Your task to perform on an android device: View the shopping cart on amazon.com. Add jbl flip 4 to the cart on amazon.com, then select checkout. Image 0: 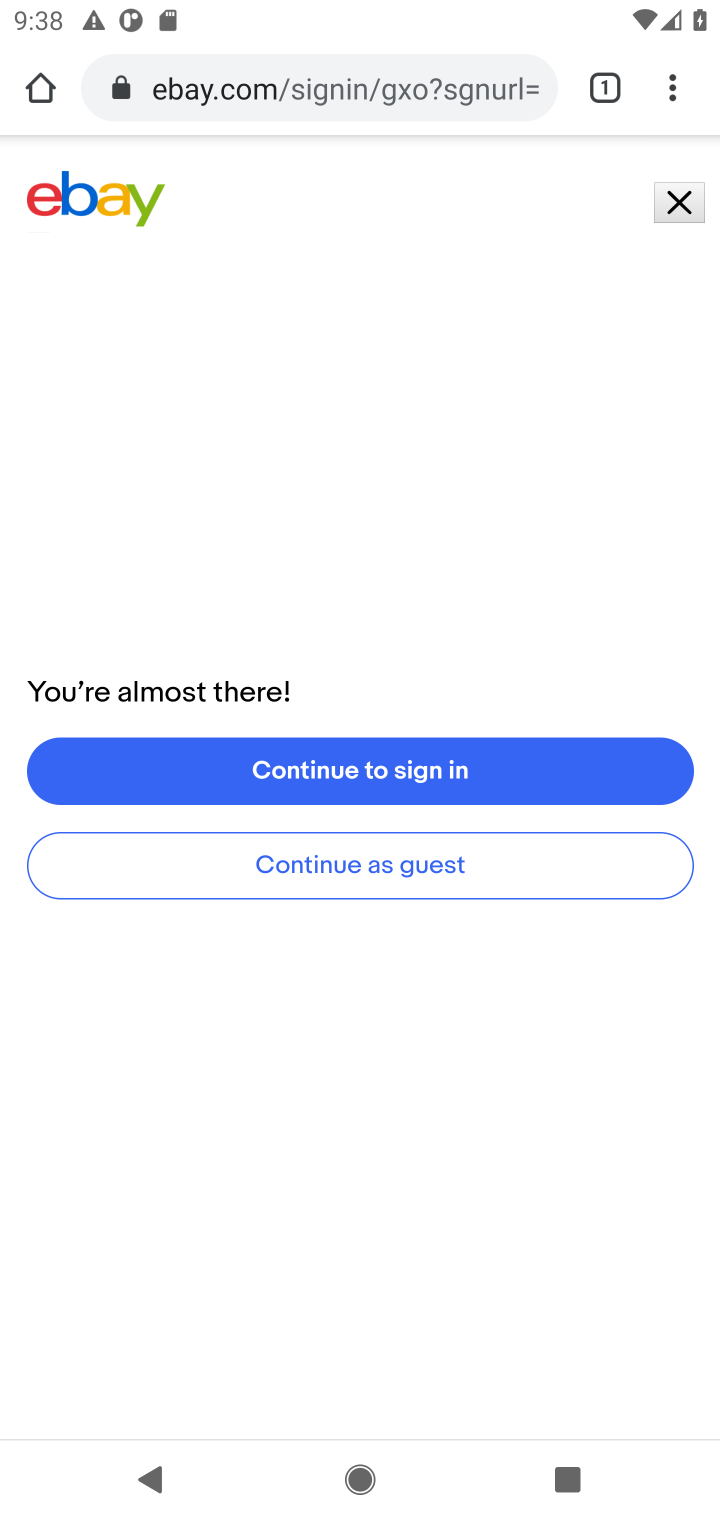
Step 0: press home button
Your task to perform on an android device: View the shopping cart on amazon.com. Add jbl flip 4 to the cart on amazon.com, then select checkout. Image 1: 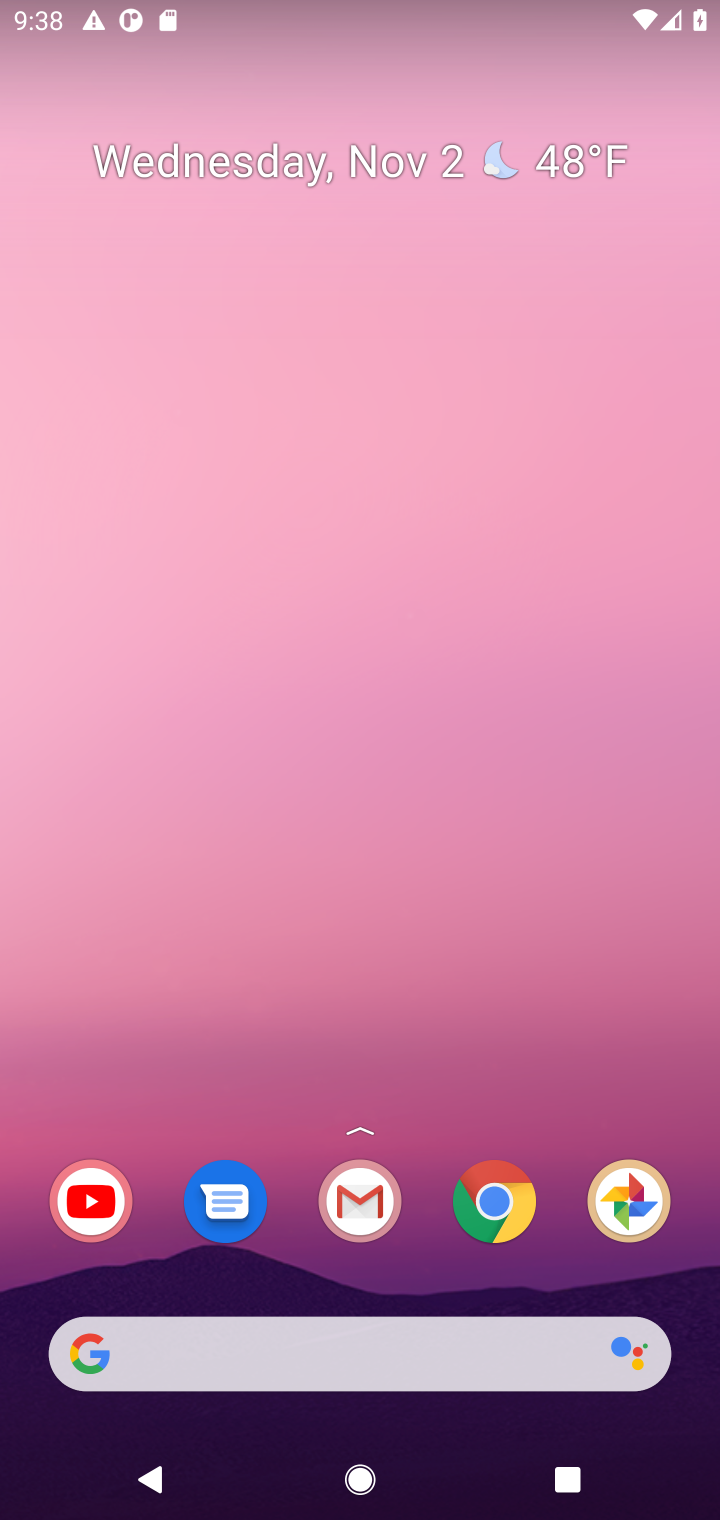
Step 1: drag from (466, 1118) to (484, 297)
Your task to perform on an android device: View the shopping cart on amazon.com. Add jbl flip 4 to the cart on amazon.com, then select checkout. Image 2: 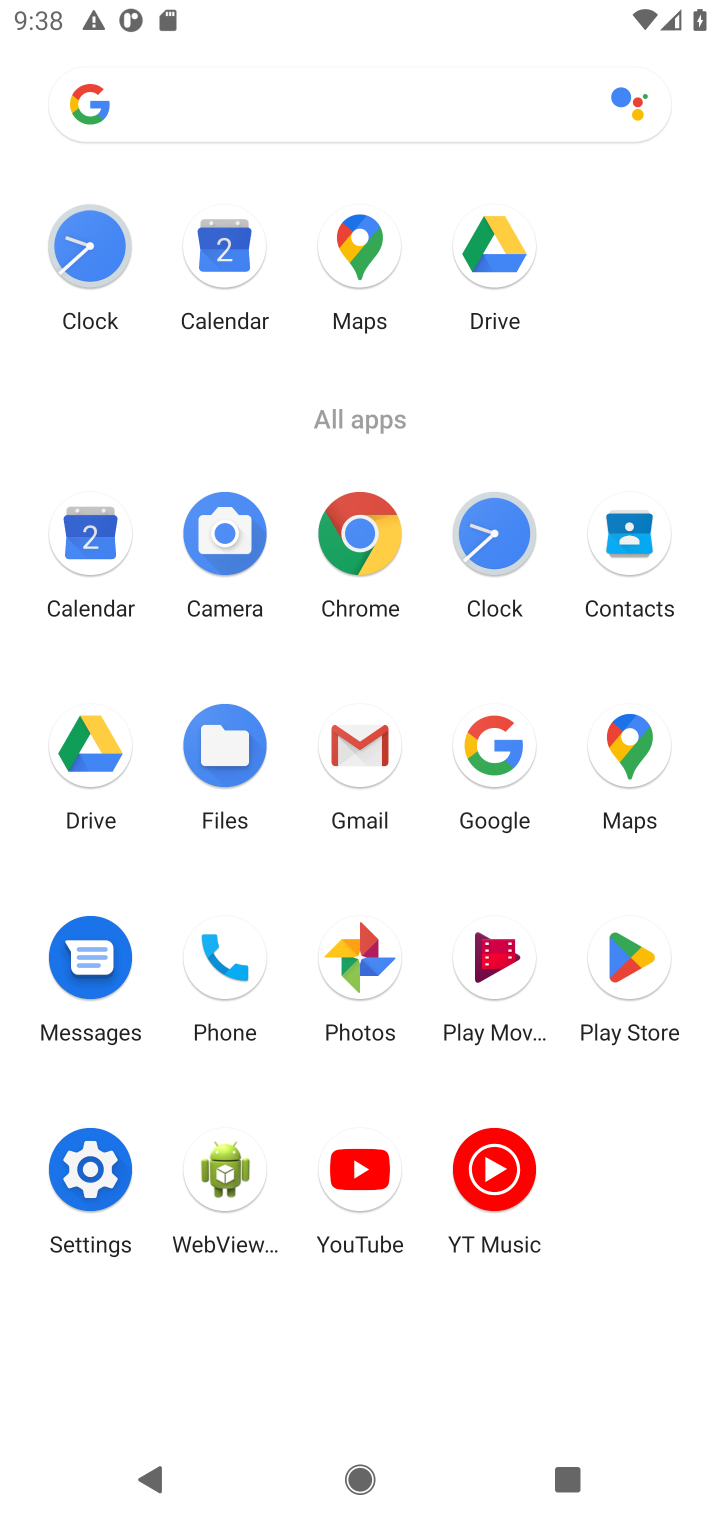
Step 2: click (358, 537)
Your task to perform on an android device: View the shopping cart on amazon.com. Add jbl flip 4 to the cart on amazon.com, then select checkout. Image 3: 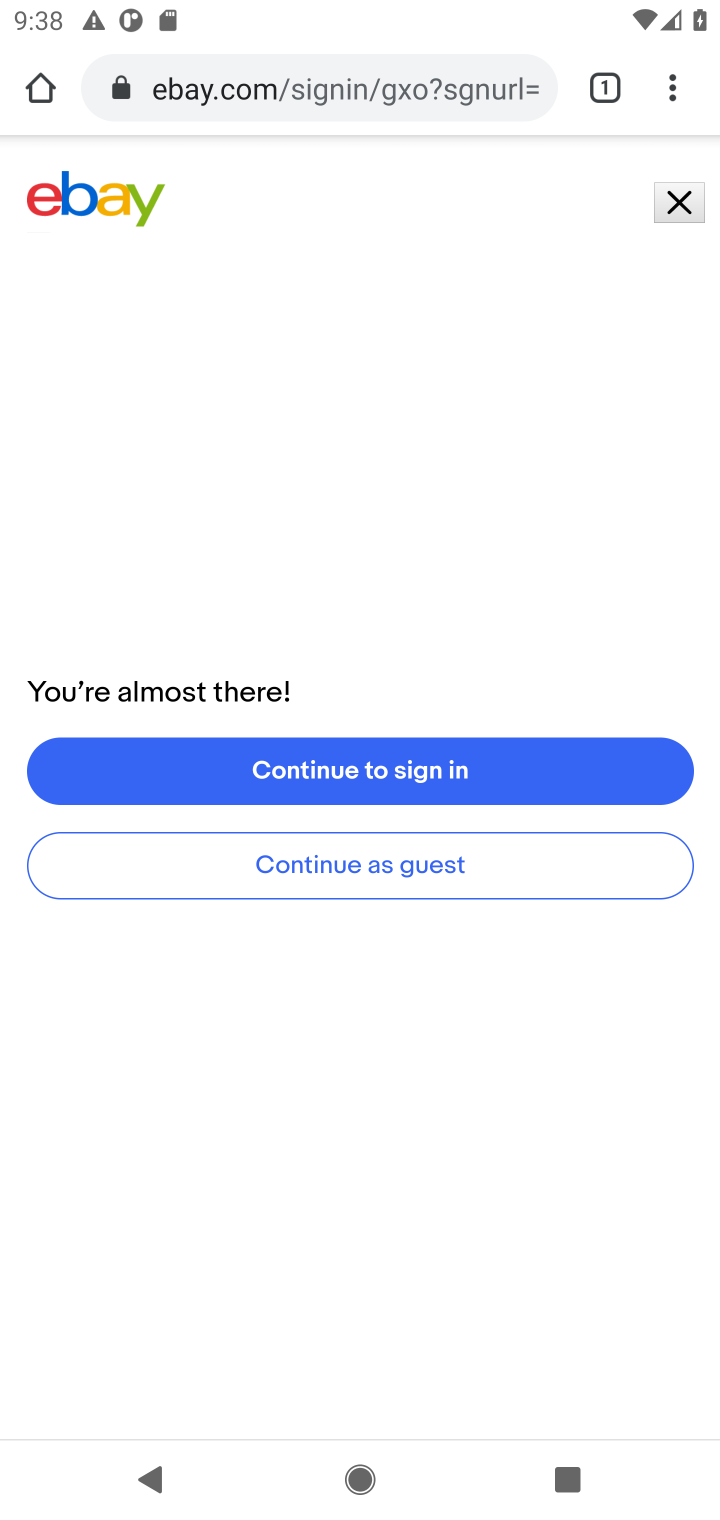
Step 3: click (350, 98)
Your task to perform on an android device: View the shopping cart on amazon.com. Add jbl flip 4 to the cart on amazon.com, then select checkout. Image 4: 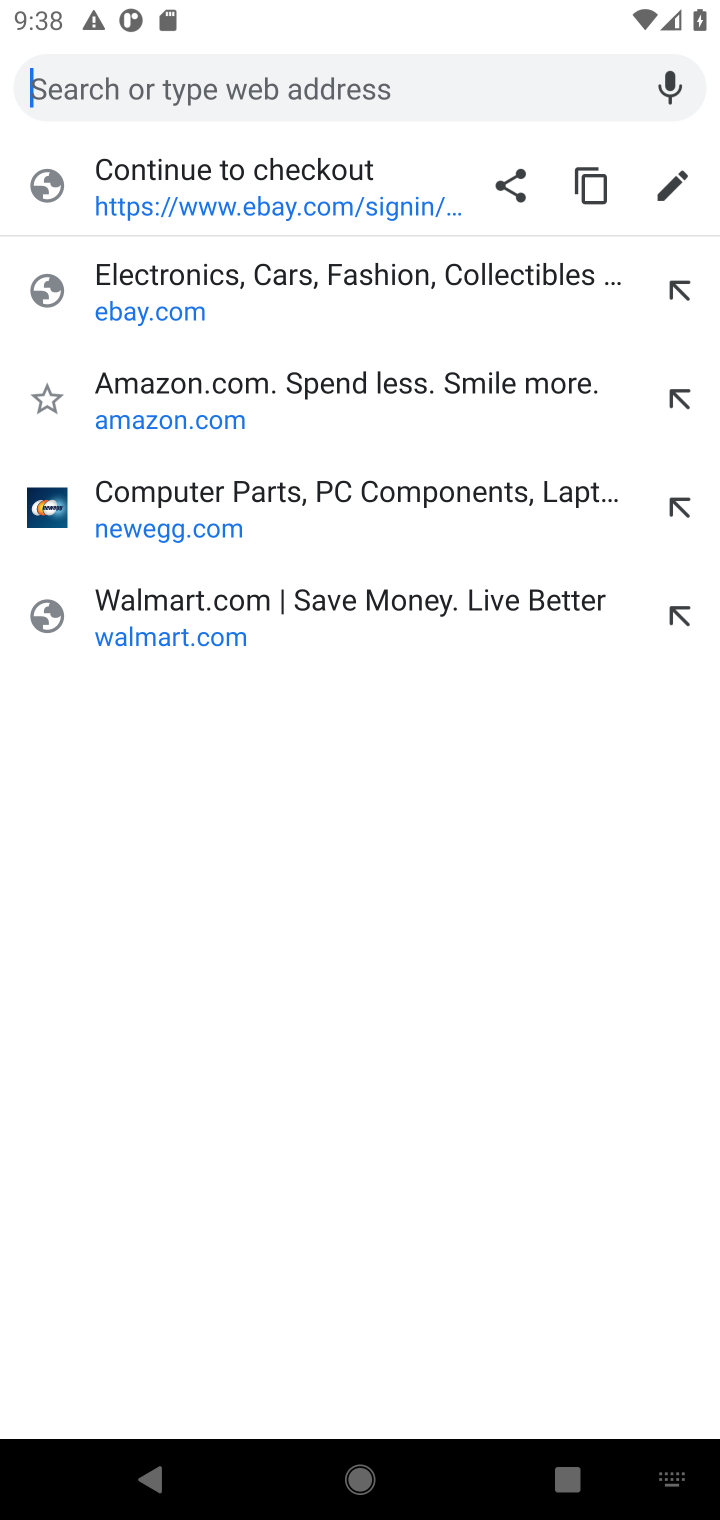
Step 4: type "amazon.com"
Your task to perform on an android device: View the shopping cart on amazon.com. Add jbl flip 4 to the cart on amazon.com, then select checkout. Image 5: 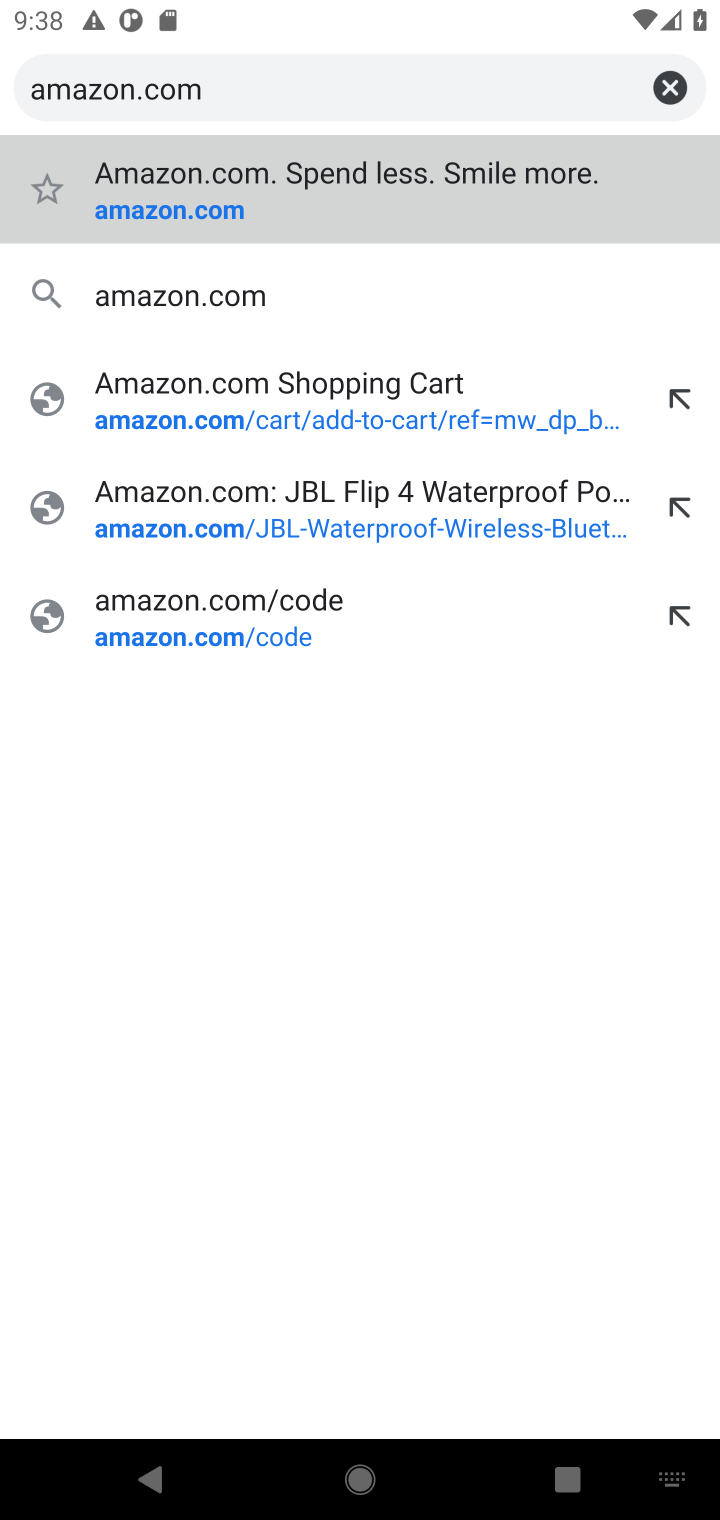
Step 5: press enter
Your task to perform on an android device: View the shopping cart on amazon.com. Add jbl flip 4 to the cart on amazon.com, then select checkout. Image 6: 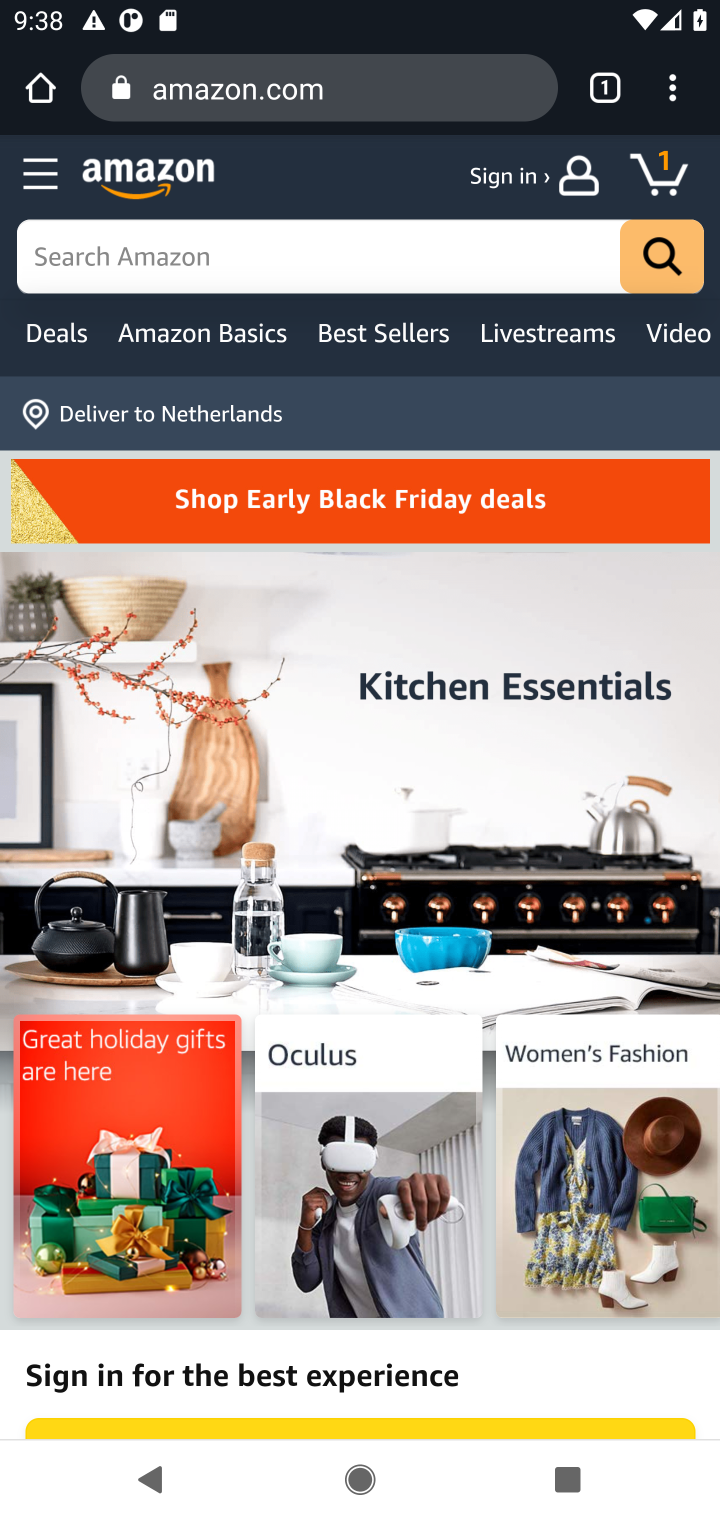
Step 6: click (318, 245)
Your task to perform on an android device: View the shopping cart on amazon.com. Add jbl flip 4 to the cart on amazon.com, then select checkout. Image 7: 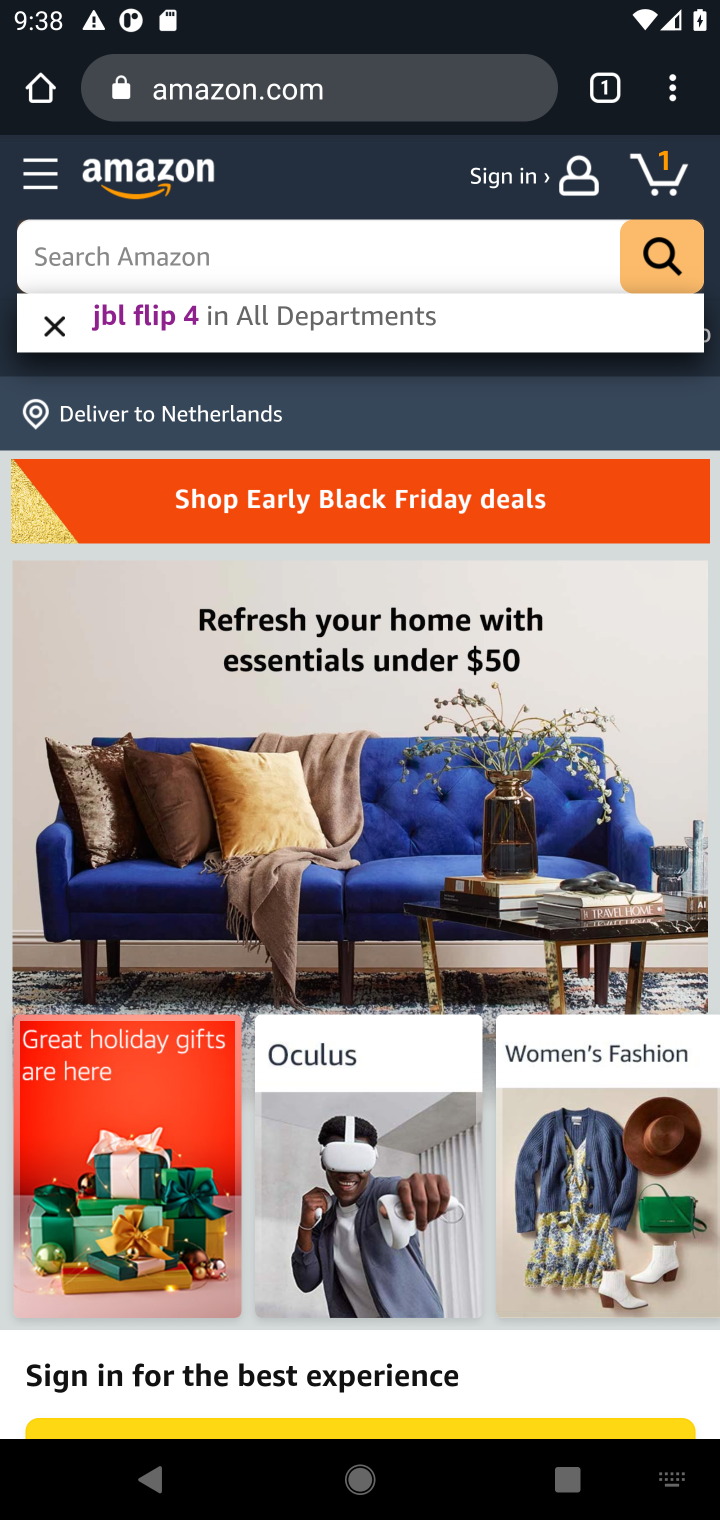
Step 7: type "jbl flip 4"
Your task to perform on an android device: View the shopping cart on amazon.com. Add jbl flip 4 to the cart on amazon.com, then select checkout. Image 8: 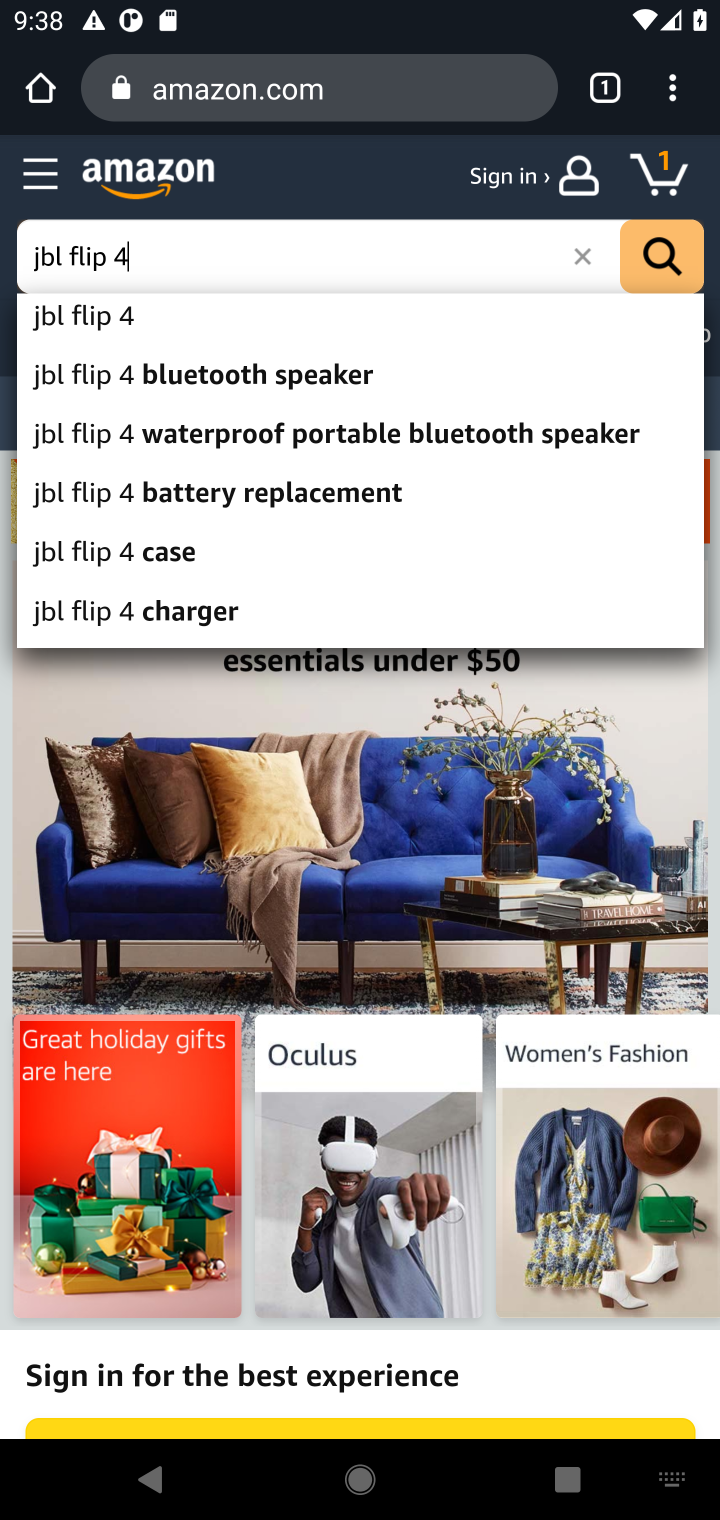
Step 8: press enter
Your task to perform on an android device: View the shopping cart on amazon.com. Add jbl flip 4 to the cart on amazon.com, then select checkout. Image 9: 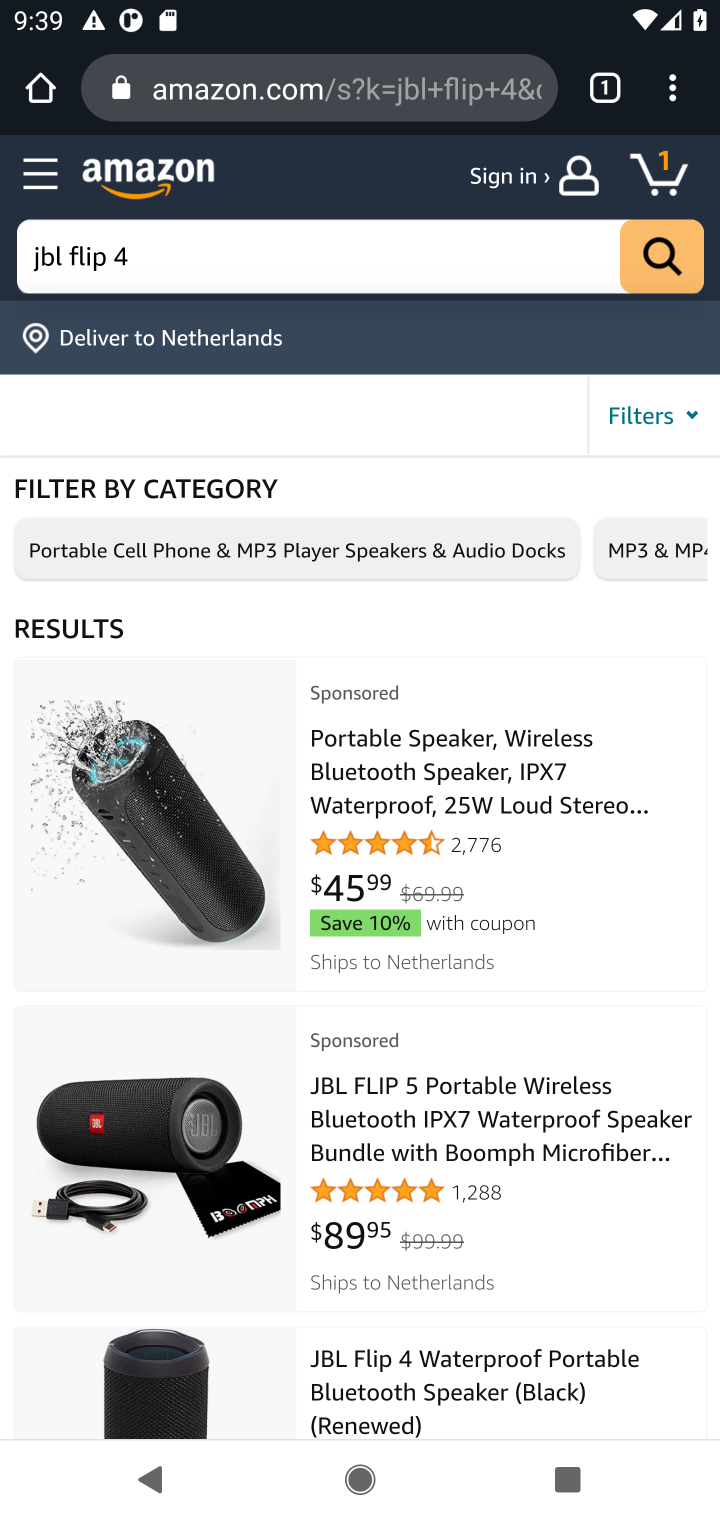
Step 9: drag from (298, 1077) to (344, 371)
Your task to perform on an android device: View the shopping cart on amazon.com. Add jbl flip 4 to the cart on amazon.com, then select checkout. Image 10: 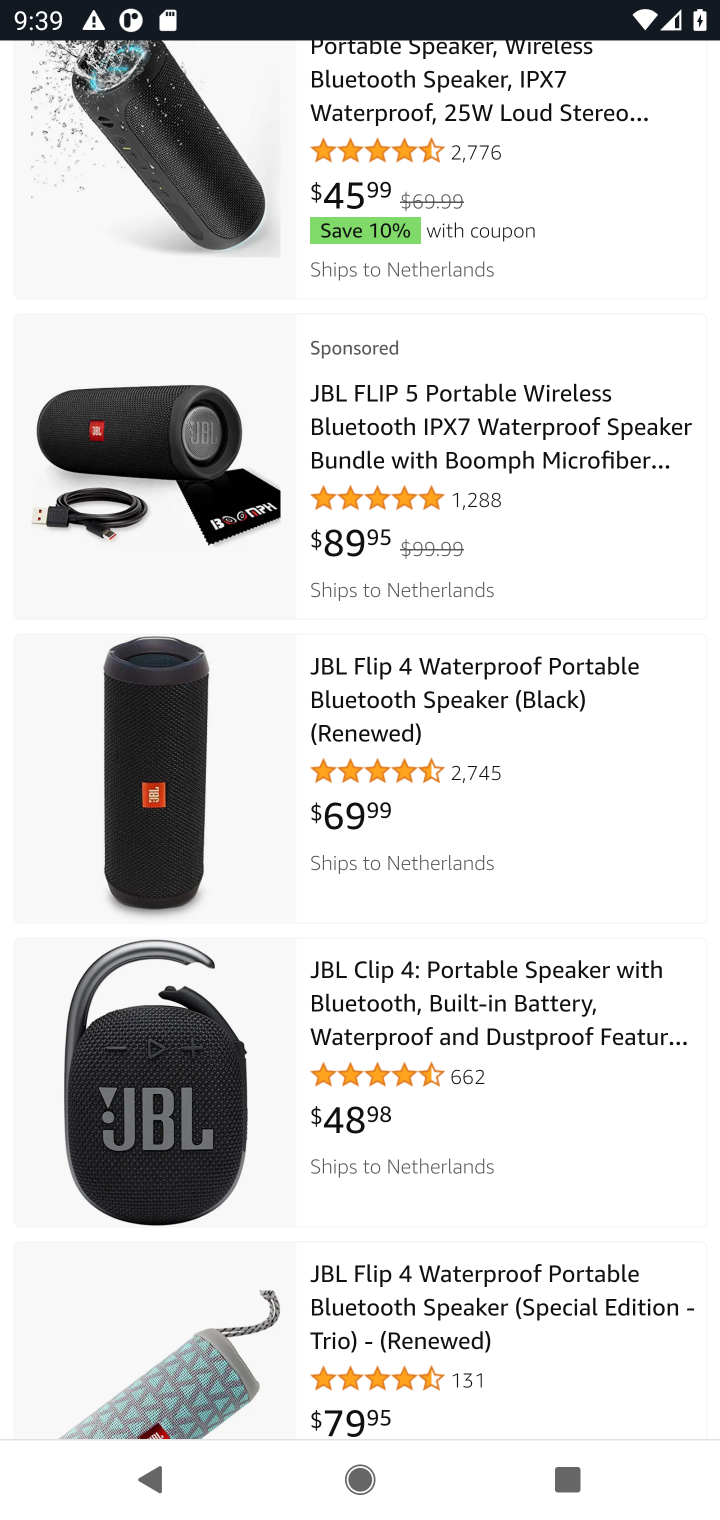
Step 10: click (393, 740)
Your task to perform on an android device: View the shopping cart on amazon.com. Add jbl flip 4 to the cart on amazon.com, then select checkout. Image 11: 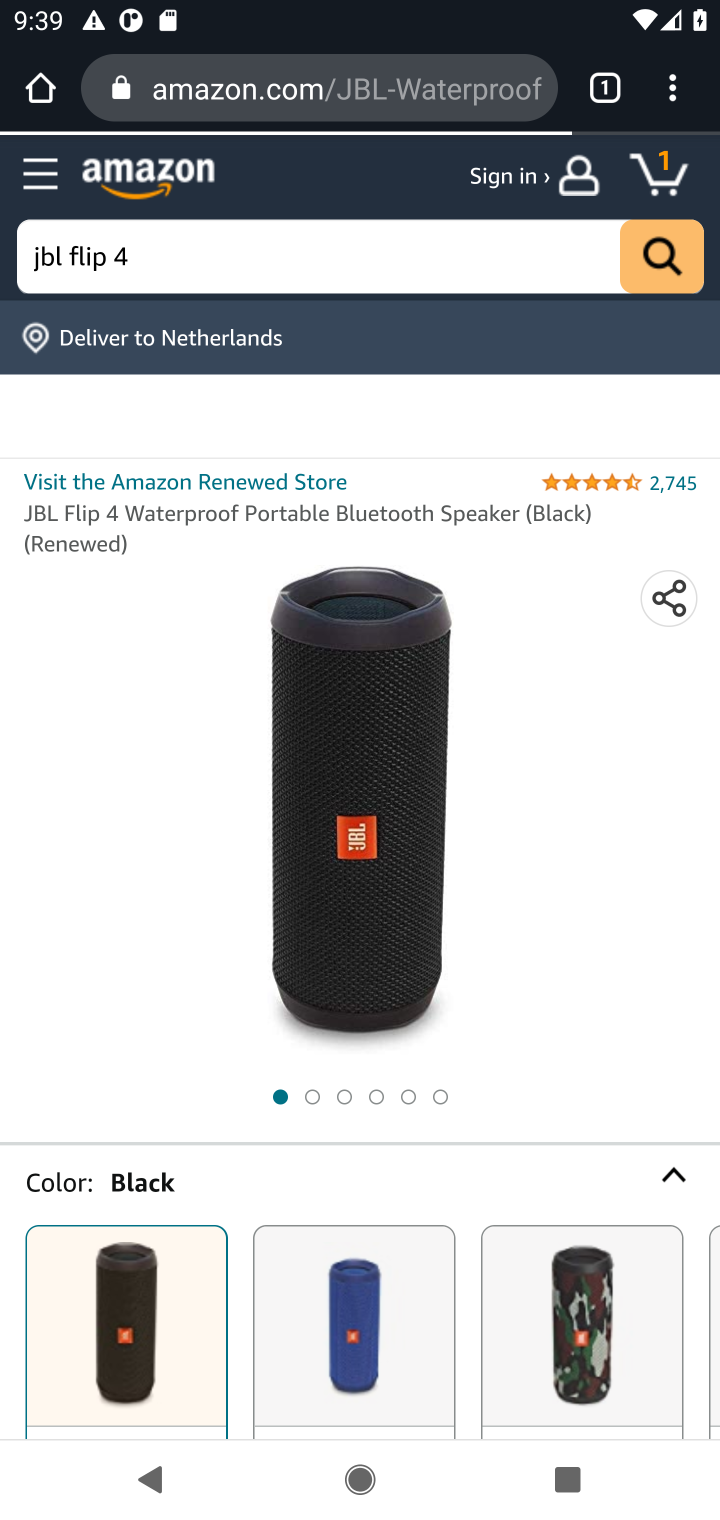
Step 11: drag from (394, 1374) to (396, 397)
Your task to perform on an android device: View the shopping cart on amazon.com. Add jbl flip 4 to the cart on amazon.com, then select checkout. Image 12: 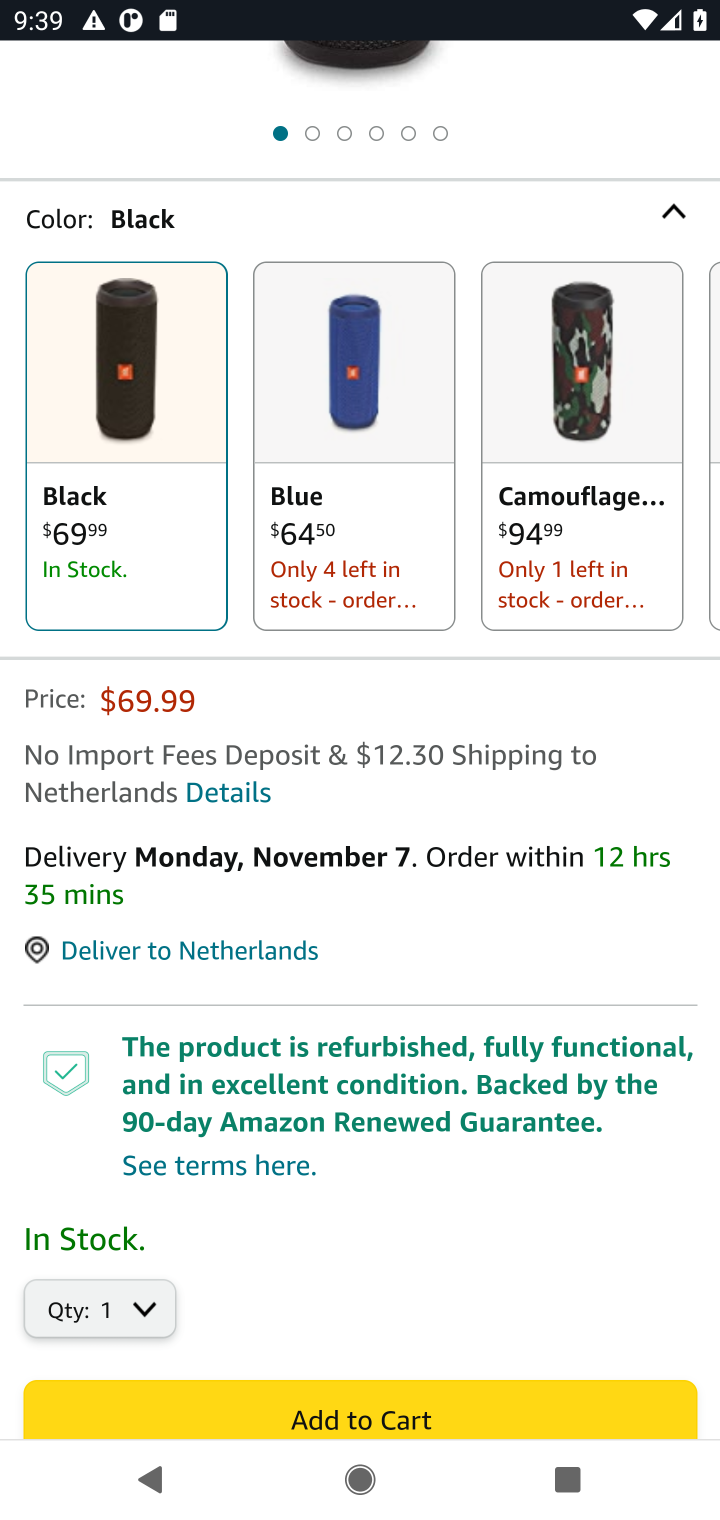
Step 12: drag from (449, 1197) to (464, 680)
Your task to perform on an android device: View the shopping cart on amazon.com. Add jbl flip 4 to the cart on amazon.com, then select checkout. Image 13: 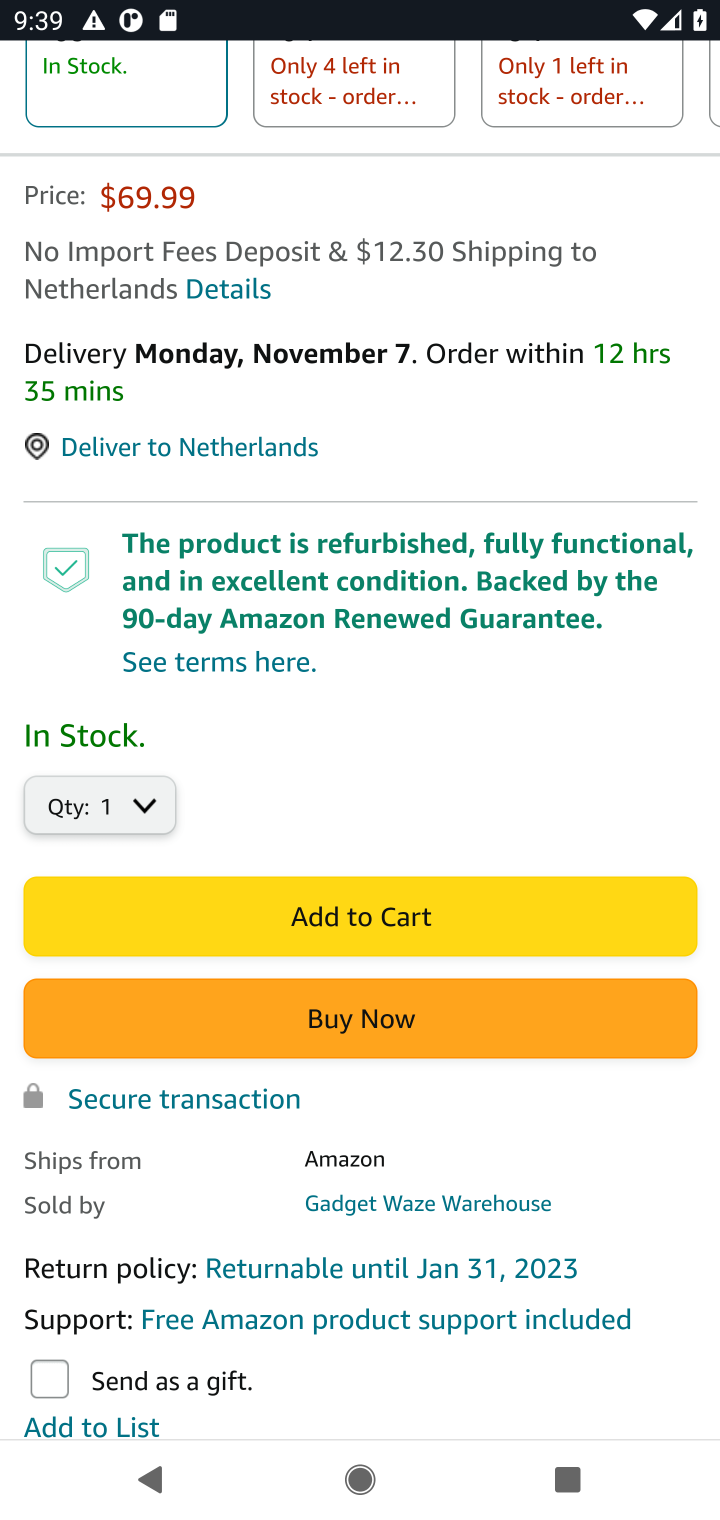
Step 13: click (405, 920)
Your task to perform on an android device: View the shopping cart on amazon.com. Add jbl flip 4 to the cart on amazon.com, then select checkout. Image 14: 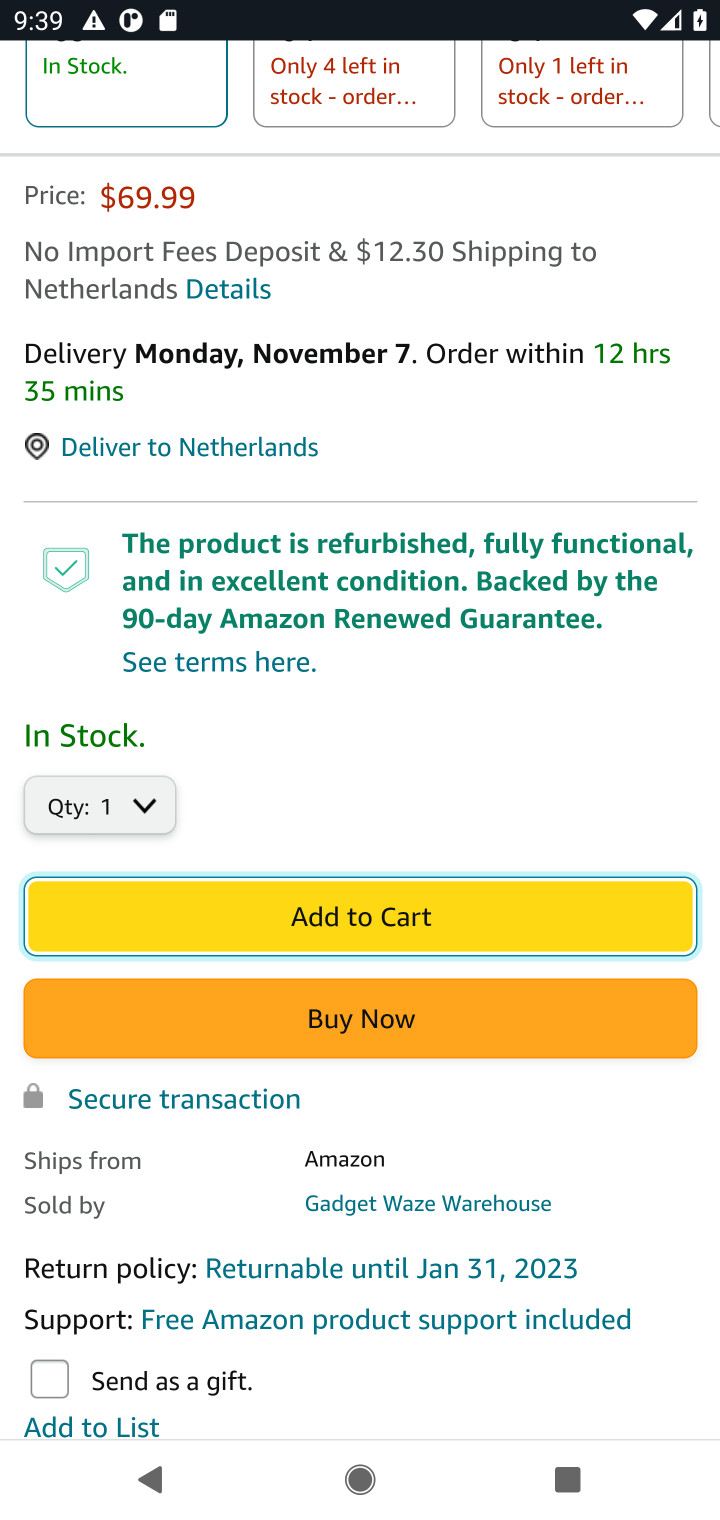
Step 14: click (410, 916)
Your task to perform on an android device: View the shopping cart on amazon.com. Add jbl flip 4 to the cart on amazon.com, then select checkout. Image 15: 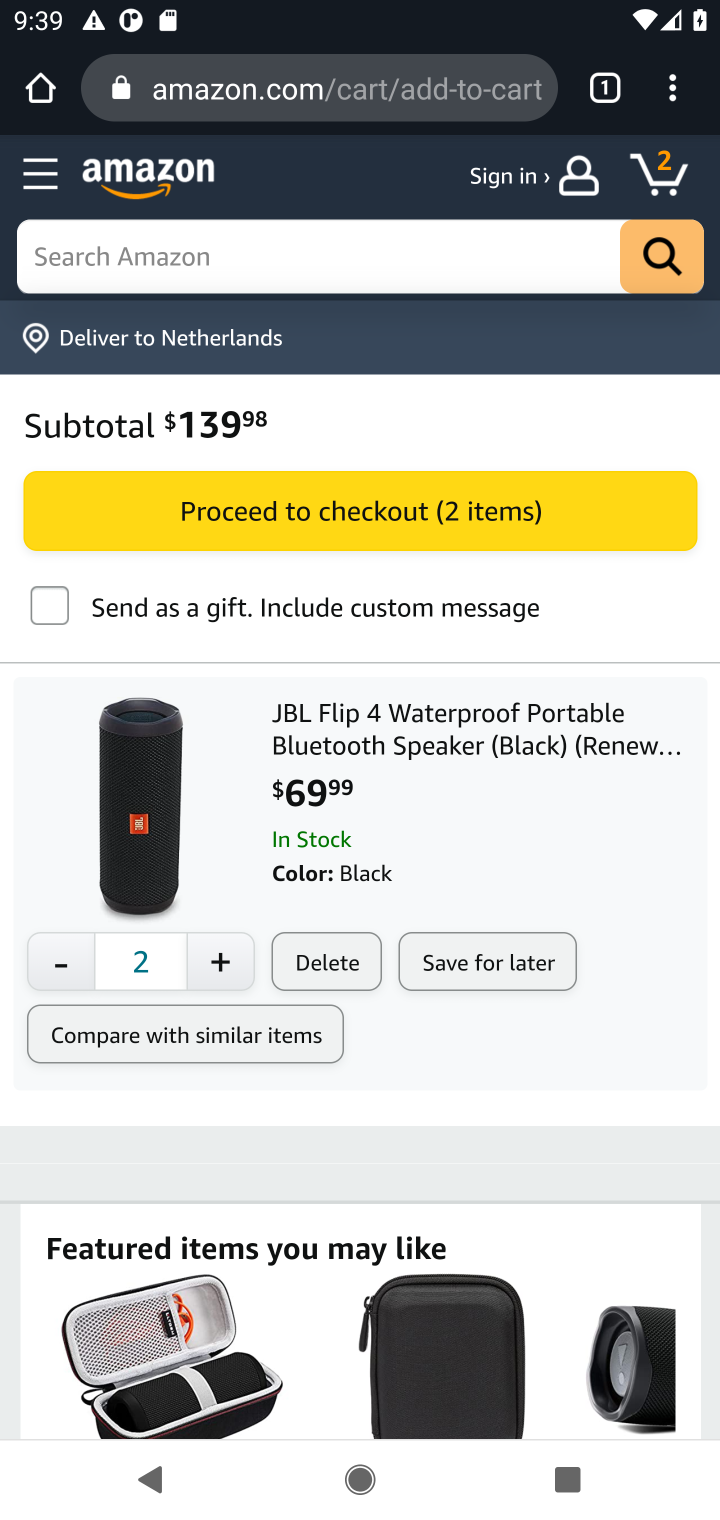
Step 15: click (468, 518)
Your task to perform on an android device: View the shopping cart on amazon.com. Add jbl flip 4 to the cart on amazon.com, then select checkout. Image 16: 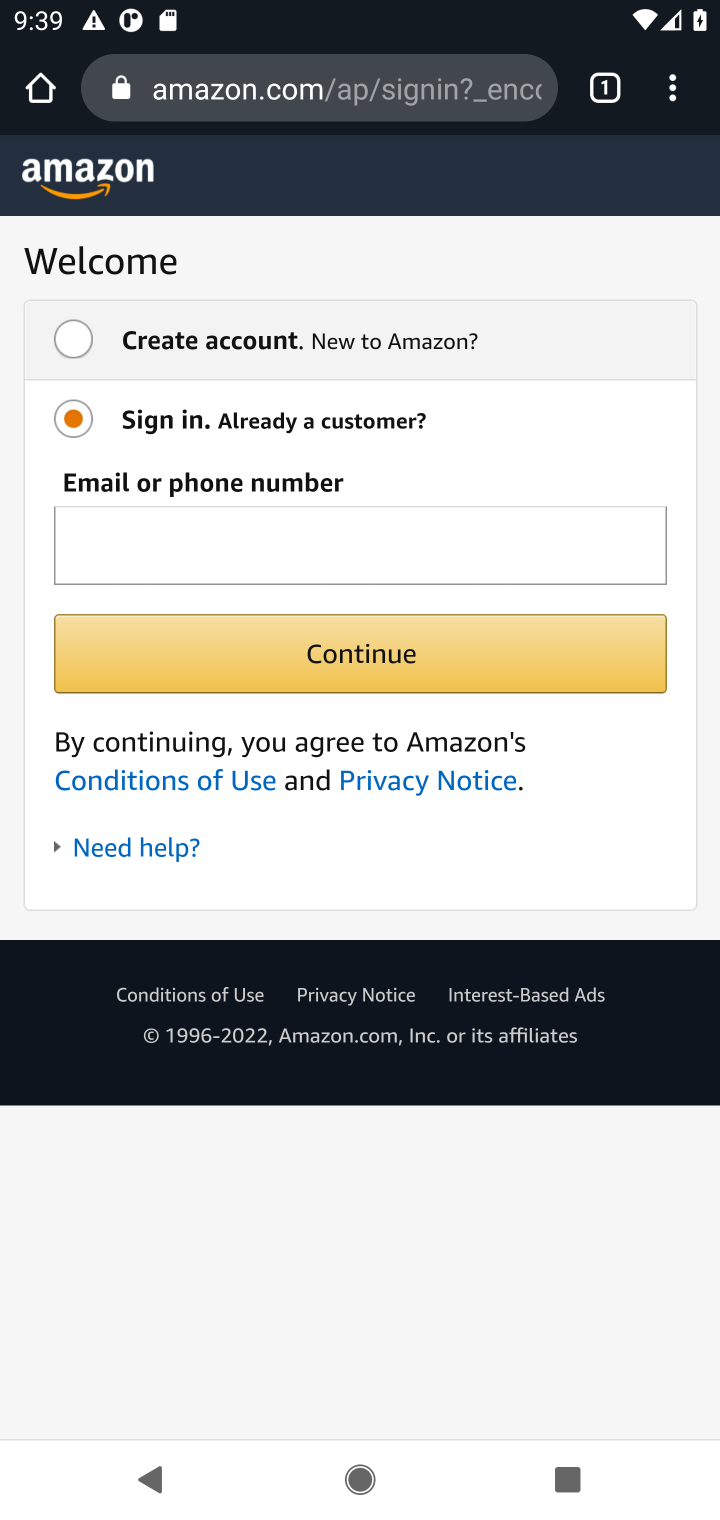
Step 16: task complete